Your task to perform on an android device: Open privacy settings Image 0: 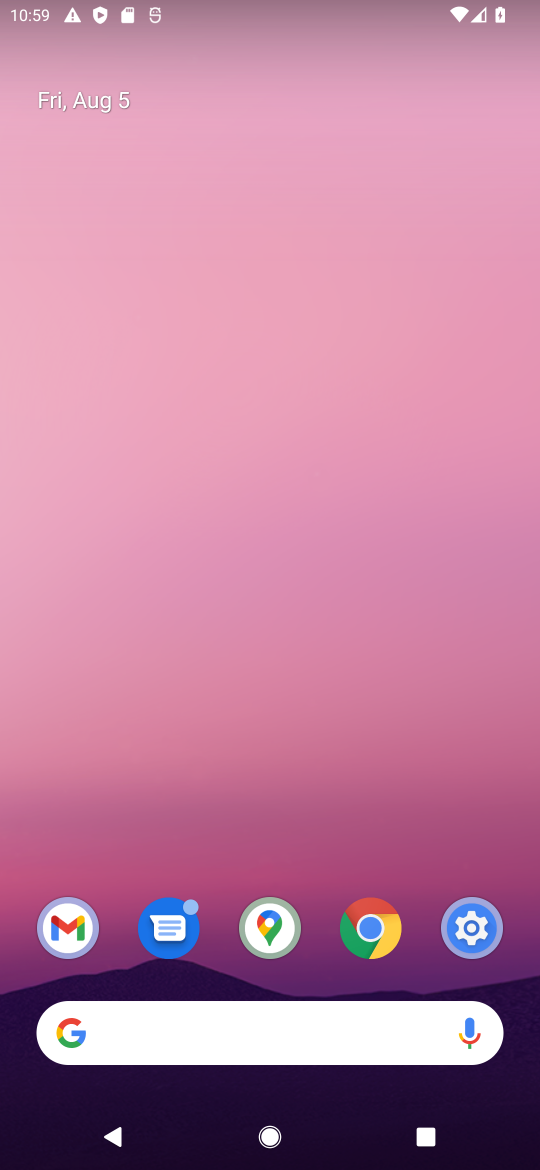
Step 0: click (471, 928)
Your task to perform on an android device: Open privacy settings Image 1: 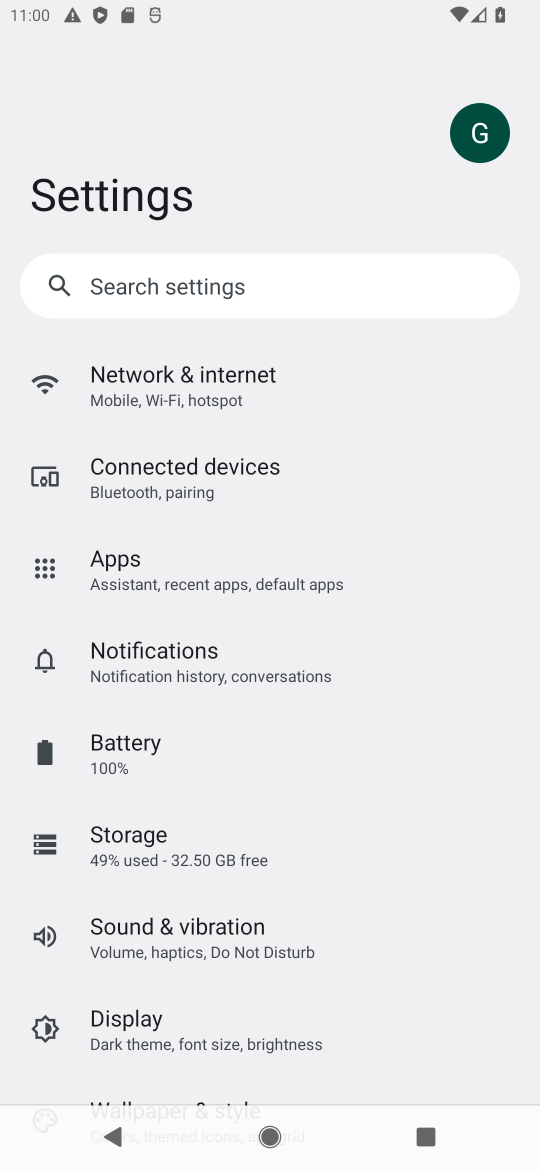
Step 1: drag from (190, 1015) to (254, 606)
Your task to perform on an android device: Open privacy settings Image 2: 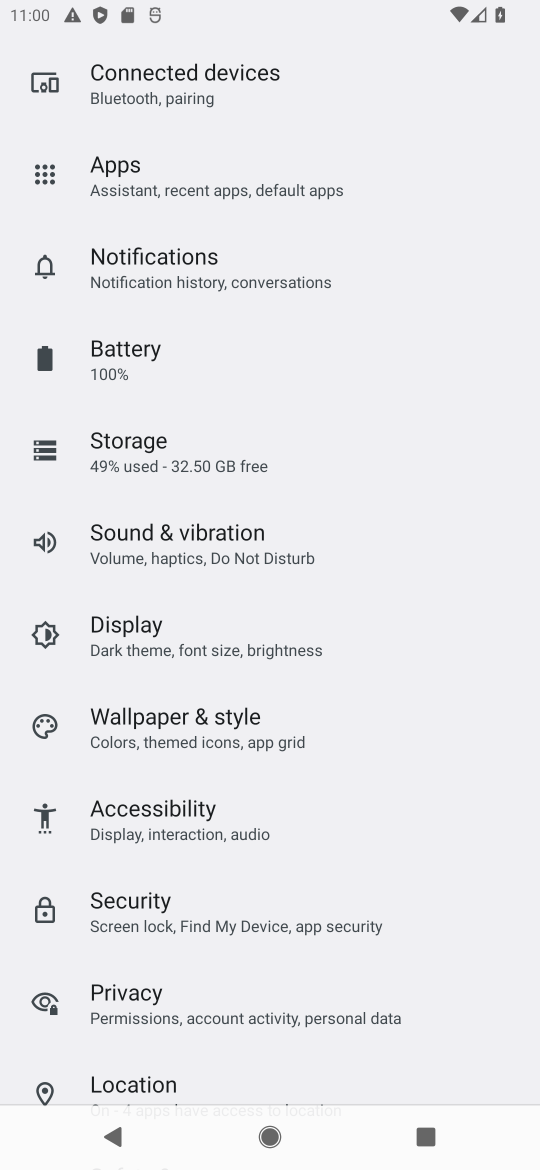
Step 2: click (161, 1003)
Your task to perform on an android device: Open privacy settings Image 3: 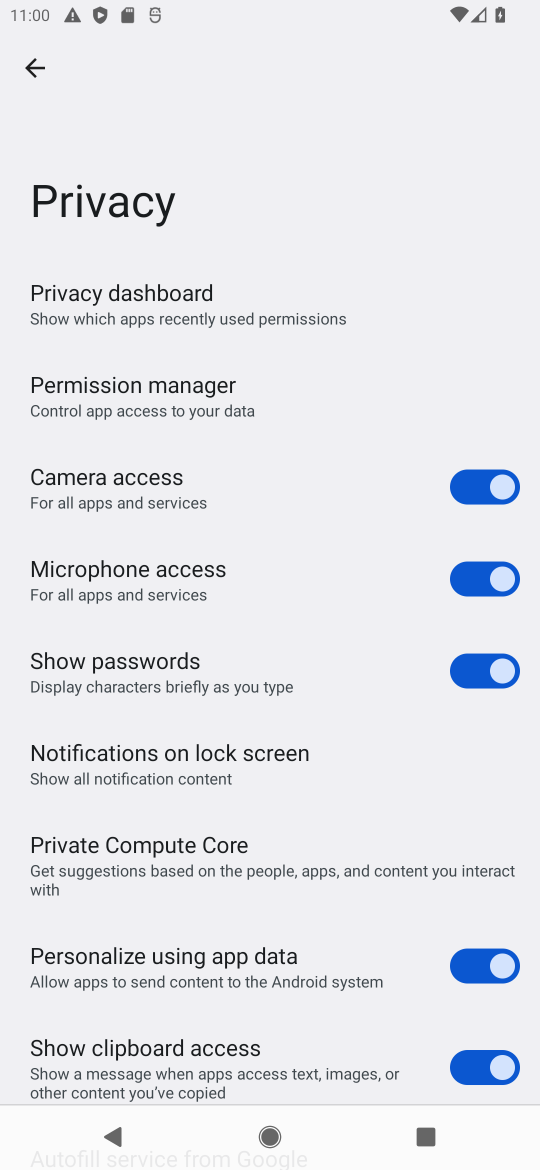
Step 3: task complete